Your task to perform on an android device: Search for sushi restaurants on Maps Image 0: 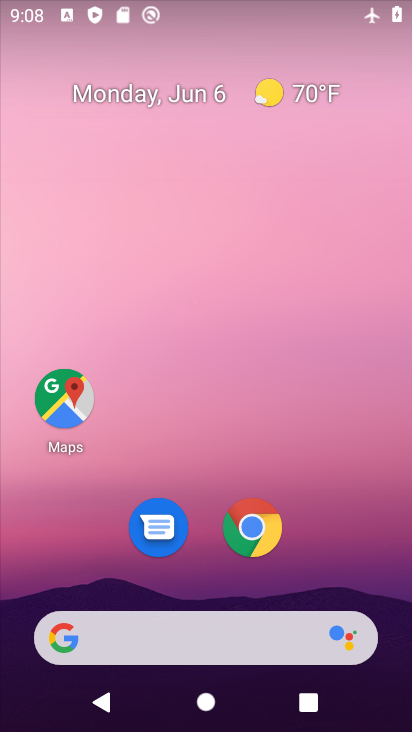
Step 0: drag from (258, 502) to (300, 206)
Your task to perform on an android device: Search for sushi restaurants on Maps Image 1: 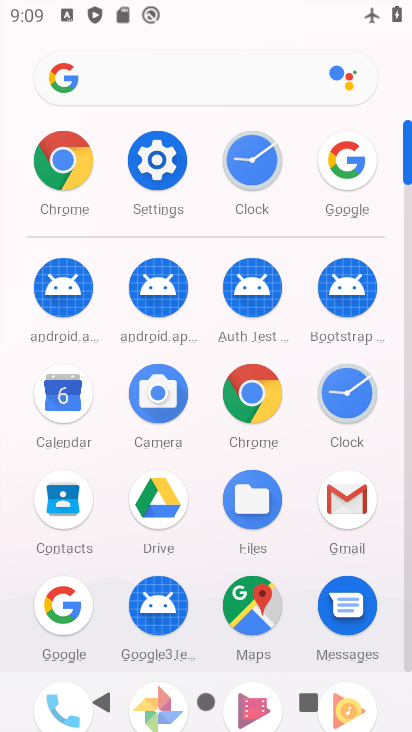
Step 1: click (250, 614)
Your task to perform on an android device: Search for sushi restaurants on Maps Image 2: 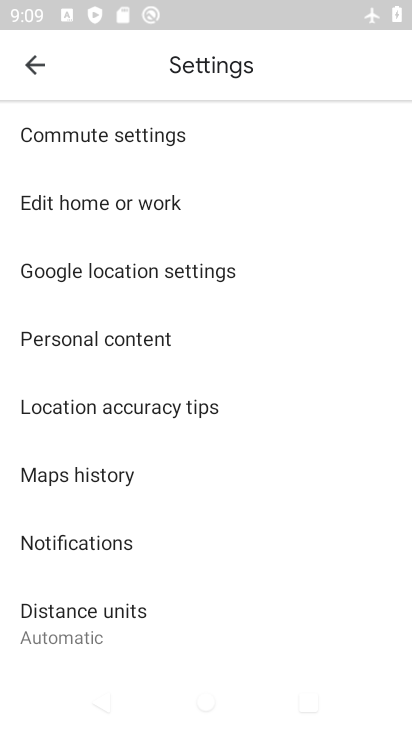
Step 2: click (38, 74)
Your task to perform on an android device: Search for sushi restaurants on Maps Image 3: 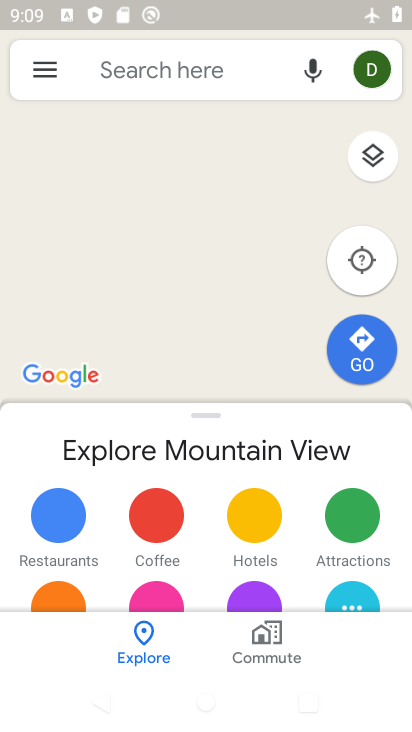
Step 3: click (192, 75)
Your task to perform on an android device: Search for sushi restaurants on Maps Image 4: 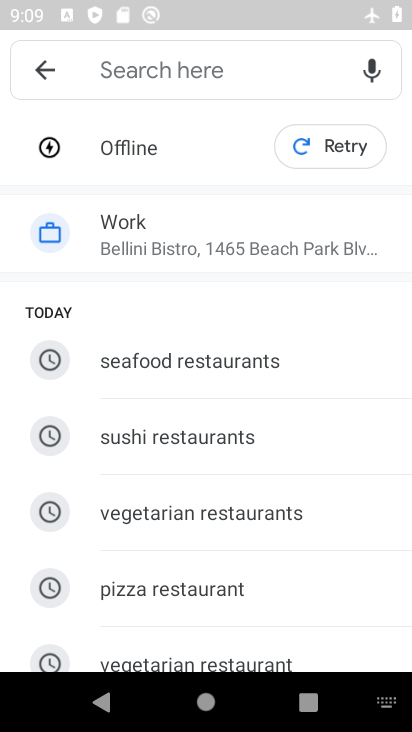
Step 4: click (260, 446)
Your task to perform on an android device: Search for sushi restaurants on Maps Image 5: 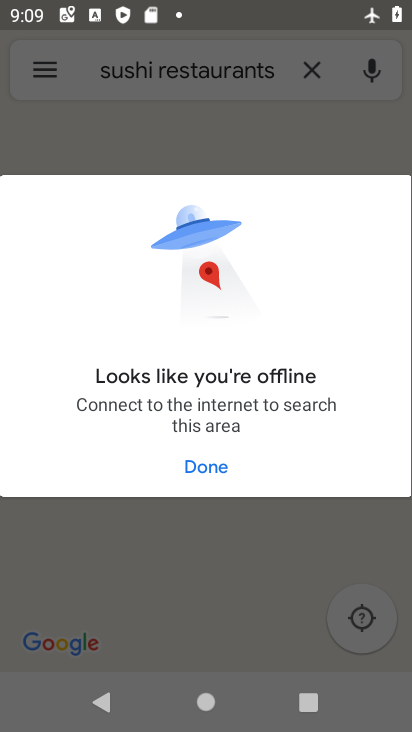
Step 5: click (207, 471)
Your task to perform on an android device: Search for sushi restaurants on Maps Image 6: 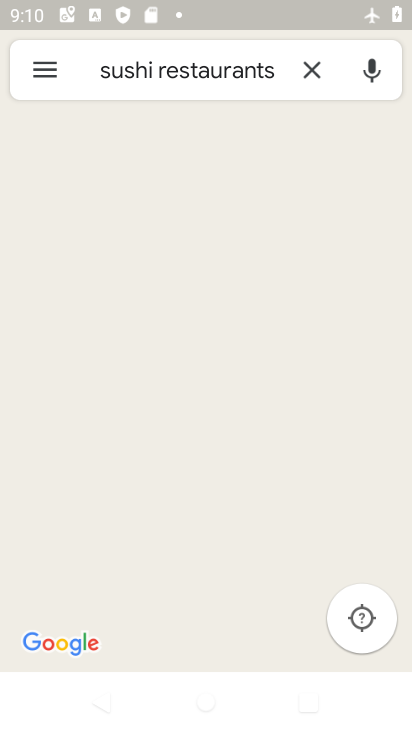
Step 6: task complete